Your task to perform on an android device: Open calendar and show me the second week of next month Image 0: 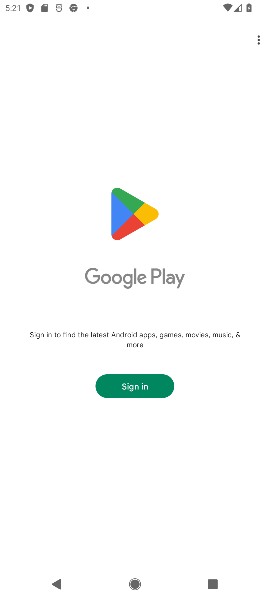
Step 0: press home button
Your task to perform on an android device: Open calendar and show me the second week of next month Image 1: 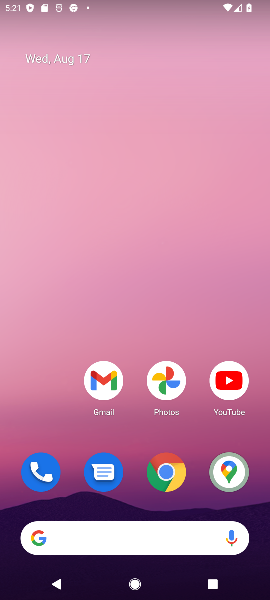
Step 1: drag from (169, 431) to (169, 134)
Your task to perform on an android device: Open calendar and show me the second week of next month Image 2: 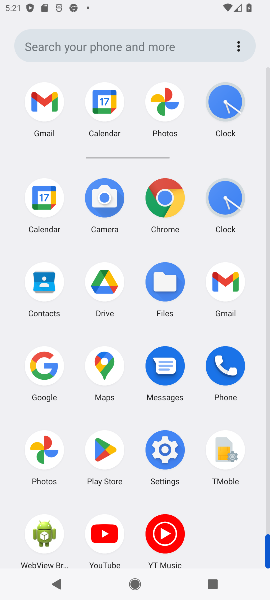
Step 2: click (51, 199)
Your task to perform on an android device: Open calendar and show me the second week of next month Image 3: 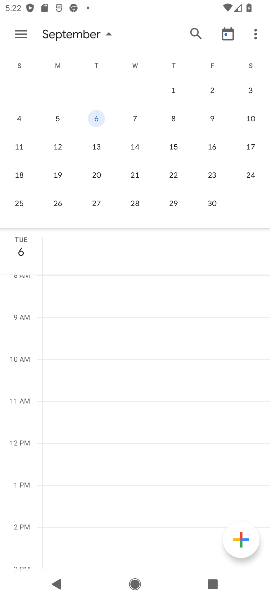
Step 3: click (25, 119)
Your task to perform on an android device: Open calendar and show me the second week of next month Image 4: 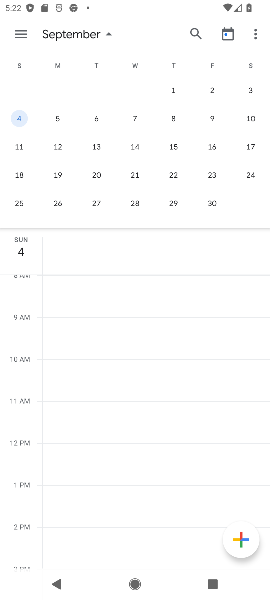
Step 4: task complete